Your task to perform on an android device: Open the Play Movies app and select the watchlist tab. Image 0: 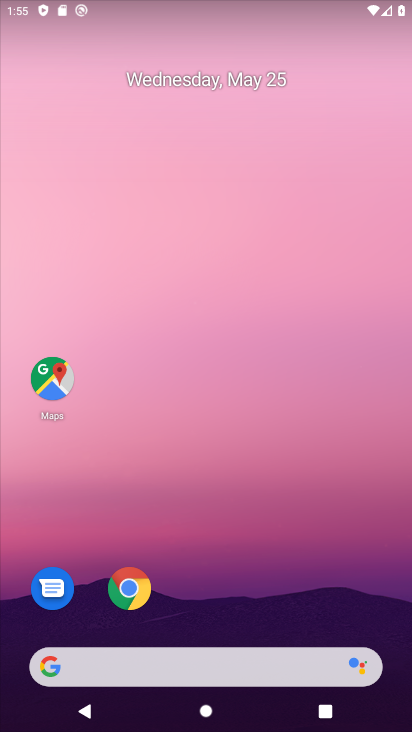
Step 0: press home button
Your task to perform on an android device: Open the Play Movies app and select the watchlist tab. Image 1: 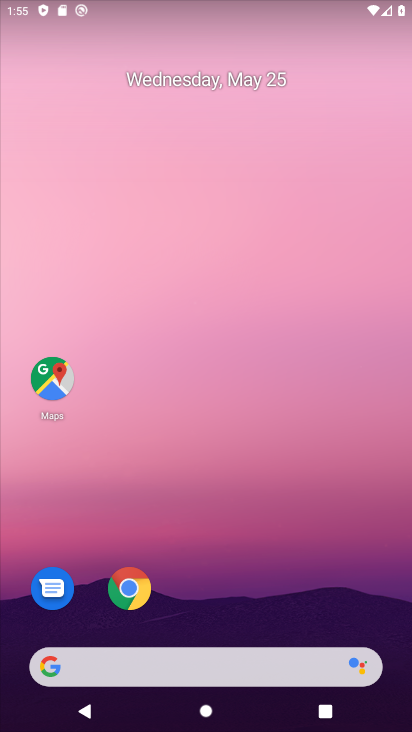
Step 1: drag from (185, 622) to (284, 137)
Your task to perform on an android device: Open the Play Movies app and select the watchlist tab. Image 2: 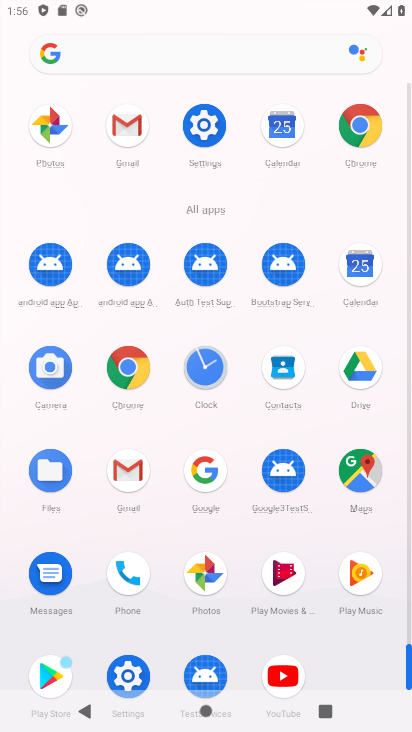
Step 2: click (282, 570)
Your task to perform on an android device: Open the Play Movies app and select the watchlist tab. Image 3: 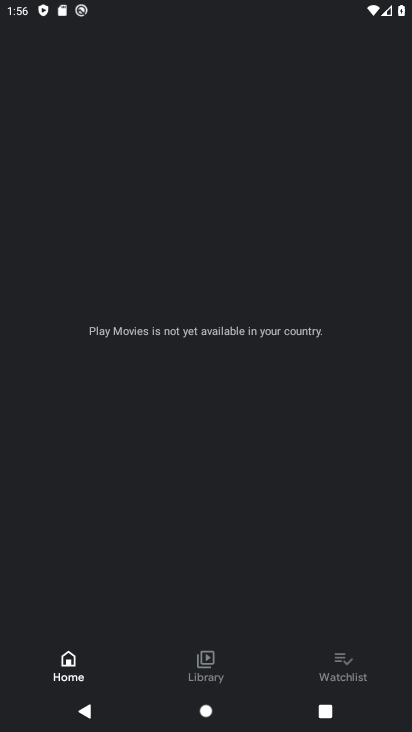
Step 3: click (355, 663)
Your task to perform on an android device: Open the Play Movies app and select the watchlist tab. Image 4: 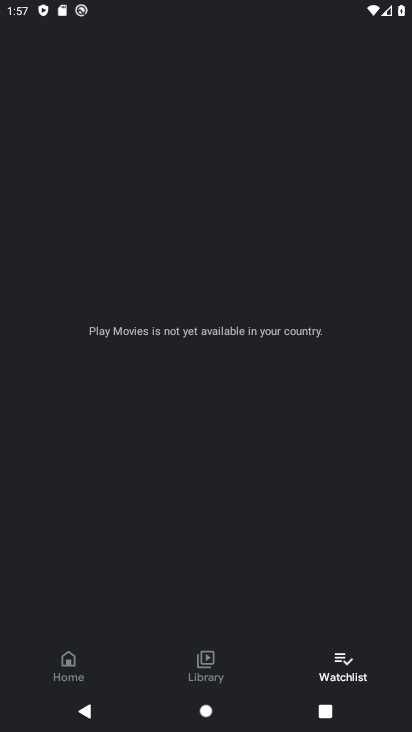
Step 4: task complete